Your task to perform on an android device: Open Chrome and go to settings Image 0: 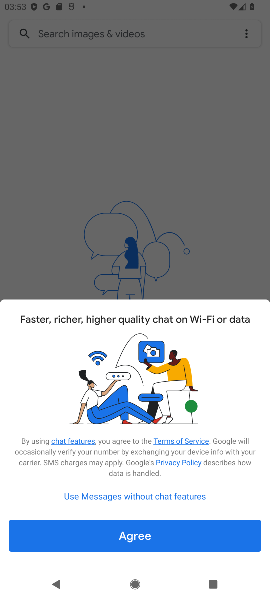
Step 0: press home button
Your task to perform on an android device: Open Chrome and go to settings Image 1: 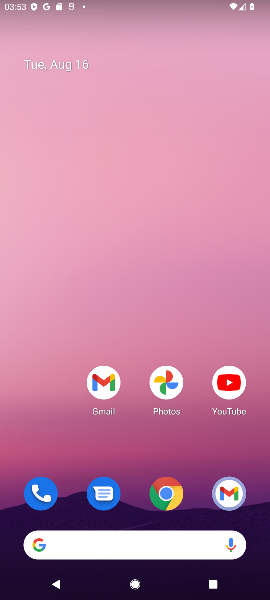
Step 1: drag from (68, 464) to (77, 99)
Your task to perform on an android device: Open Chrome and go to settings Image 2: 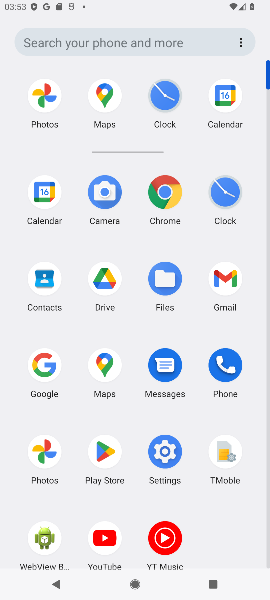
Step 2: click (167, 192)
Your task to perform on an android device: Open Chrome and go to settings Image 3: 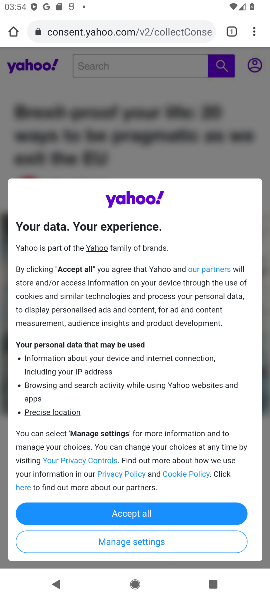
Step 3: click (253, 30)
Your task to perform on an android device: Open Chrome and go to settings Image 4: 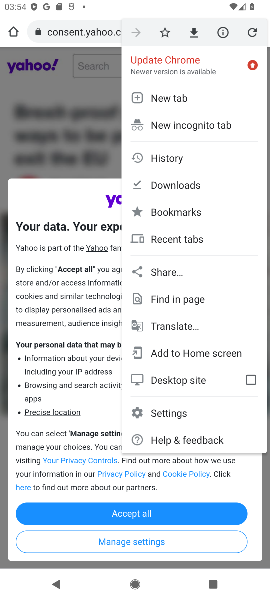
Step 4: click (175, 414)
Your task to perform on an android device: Open Chrome and go to settings Image 5: 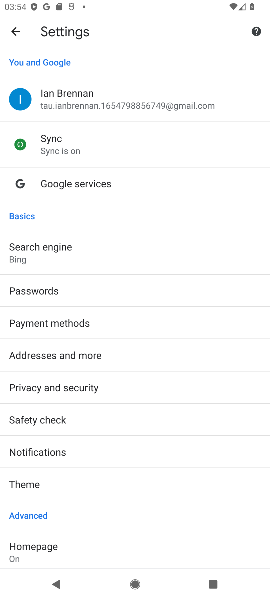
Step 5: task complete